Your task to perform on an android device: Open the calendar app, open the side menu, and click the "Day" option Image 0: 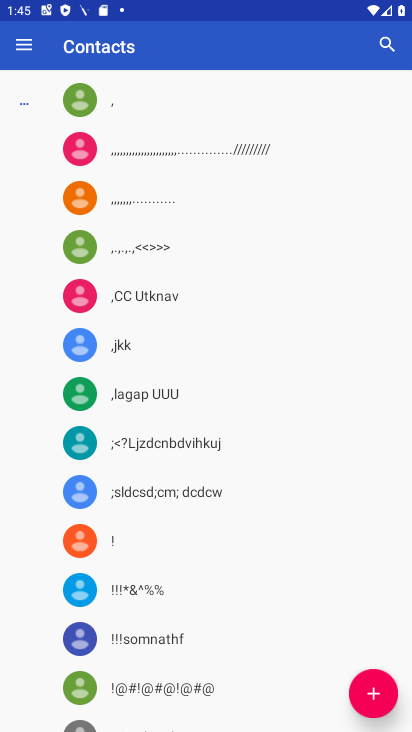
Step 0: press home button
Your task to perform on an android device: Open the calendar app, open the side menu, and click the "Day" option Image 1: 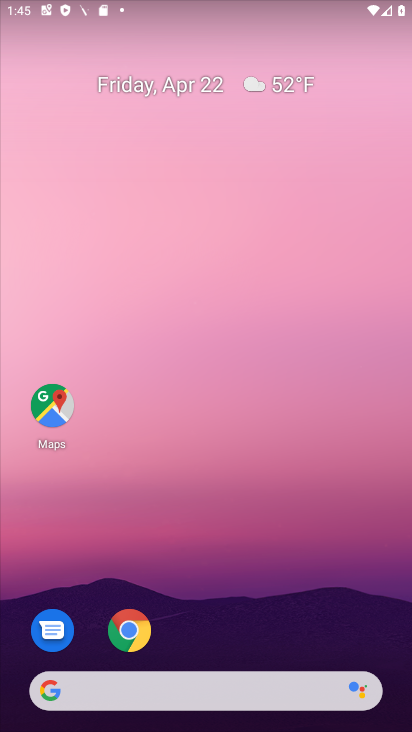
Step 1: drag from (315, 157) to (305, 75)
Your task to perform on an android device: Open the calendar app, open the side menu, and click the "Day" option Image 2: 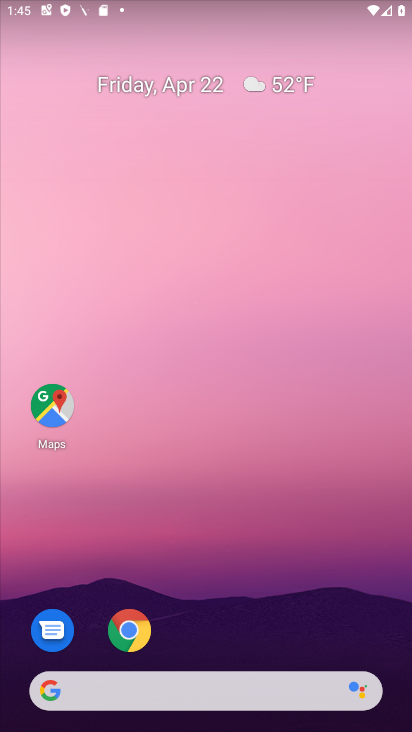
Step 2: click (346, 129)
Your task to perform on an android device: Open the calendar app, open the side menu, and click the "Day" option Image 3: 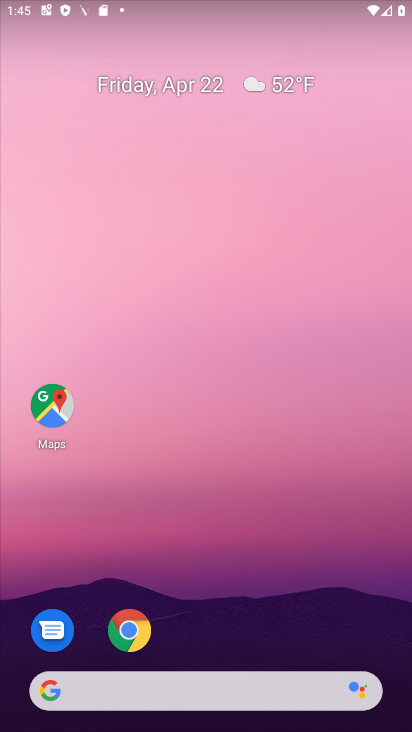
Step 3: drag from (389, 186) to (377, 112)
Your task to perform on an android device: Open the calendar app, open the side menu, and click the "Day" option Image 4: 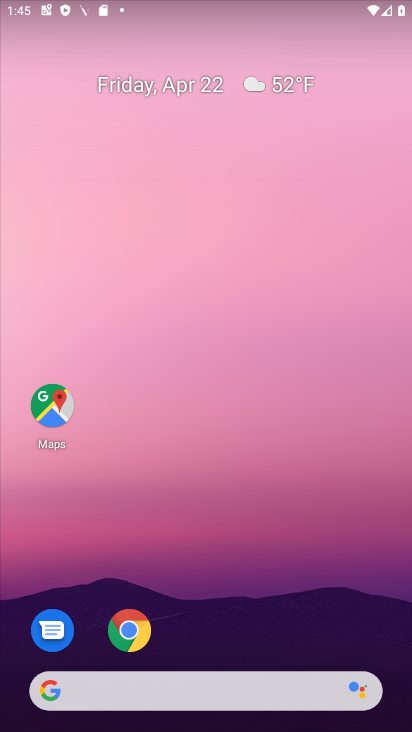
Step 4: drag from (371, 388) to (320, 9)
Your task to perform on an android device: Open the calendar app, open the side menu, and click the "Day" option Image 5: 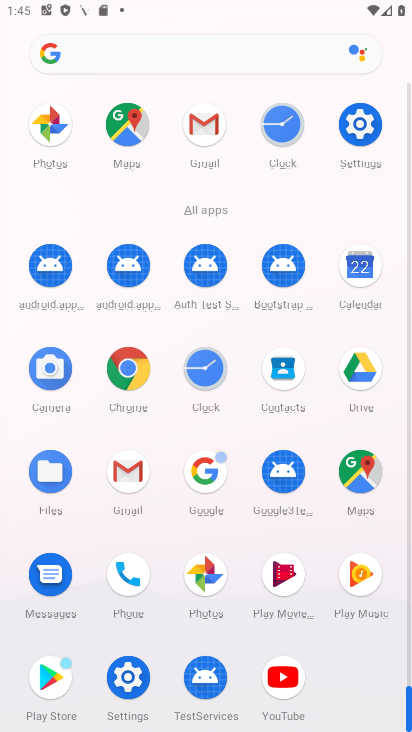
Step 5: click (363, 270)
Your task to perform on an android device: Open the calendar app, open the side menu, and click the "Day" option Image 6: 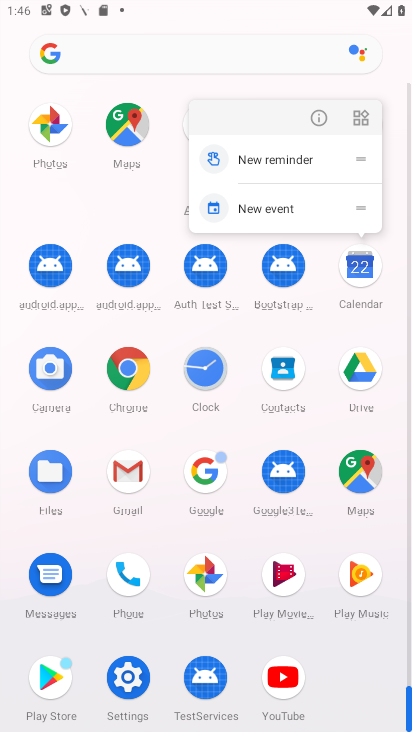
Step 6: click (360, 267)
Your task to perform on an android device: Open the calendar app, open the side menu, and click the "Day" option Image 7: 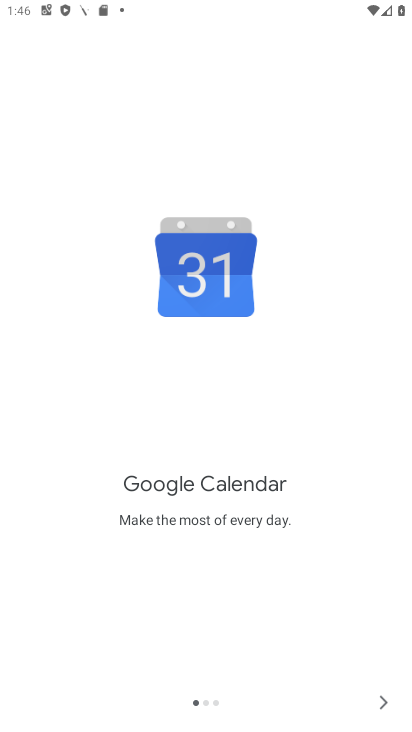
Step 7: click (360, 267)
Your task to perform on an android device: Open the calendar app, open the side menu, and click the "Day" option Image 8: 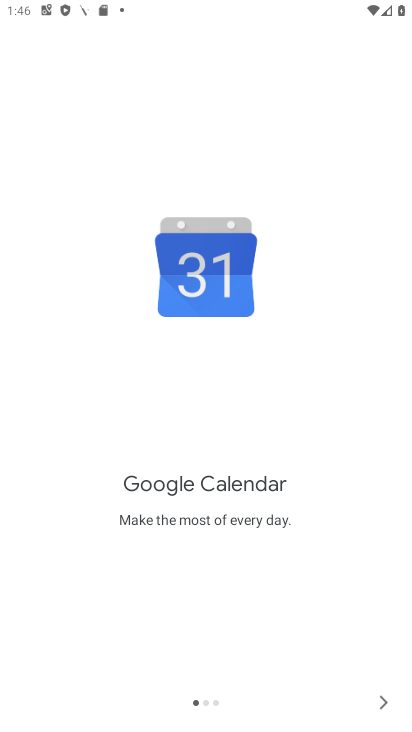
Step 8: click (383, 698)
Your task to perform on an android device: Open the calendar app, open the side menu, and click the "Day" option Image 9: 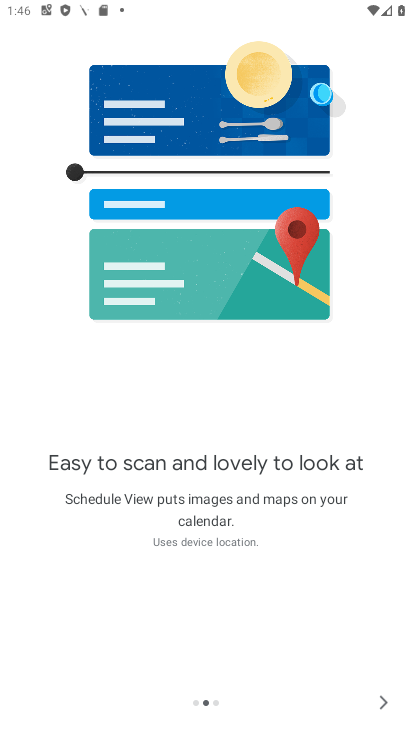
Step 9: click (383, 698)
Your task to perform on an android device: Open the calendar app, open the side menu, and click the "Day" option Image 10: 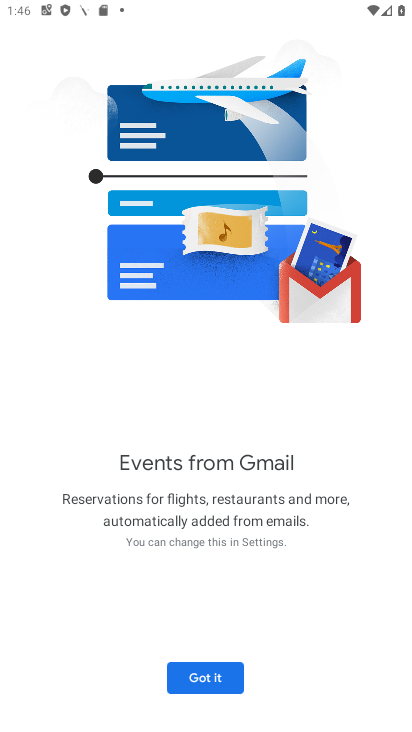
Step 10: click (190, 679)
Your task to perform on an android device: Open the calendar app, open the side menu, and click the "Day" option Image 11: 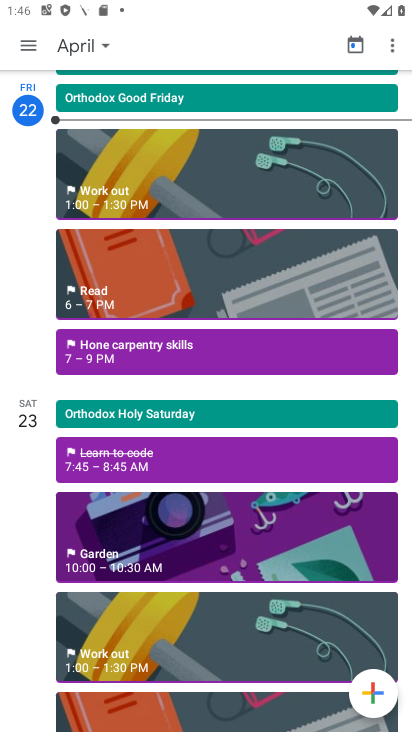
Step 11: click (21, 37)
Your task to perform on an android device: Open the calendar app, open the side menu, and click the "Day" option Image 12: 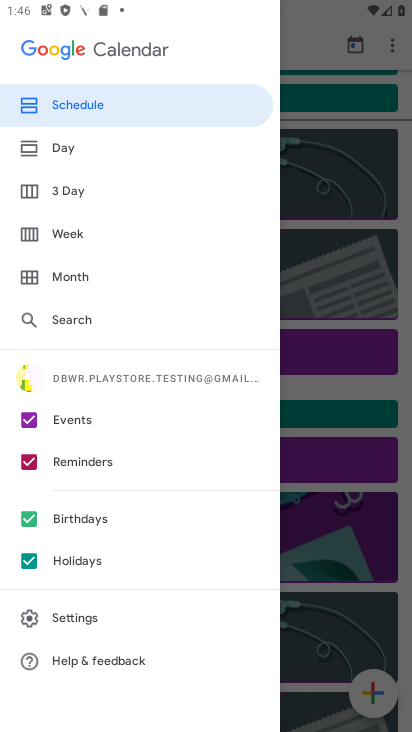
Step 12: click (72, 150)
Your task to perform on an android device: Open the calendar app, open the side menu, and click the "Day" option Image 13: 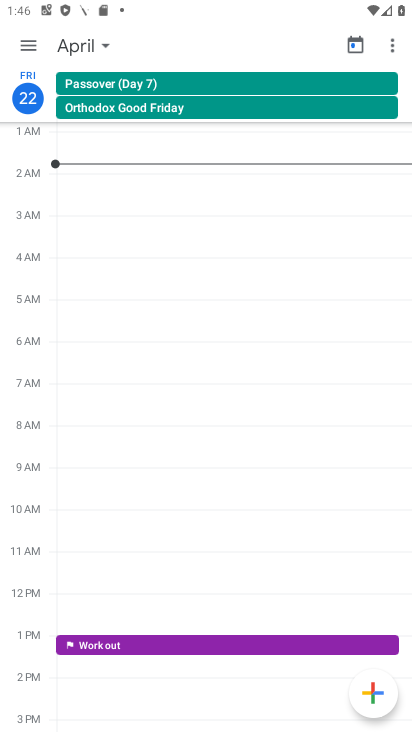
Step 13: task complete